Your task to perform on an android device: uninstall "Chime – Mobile Banking" Image 0: 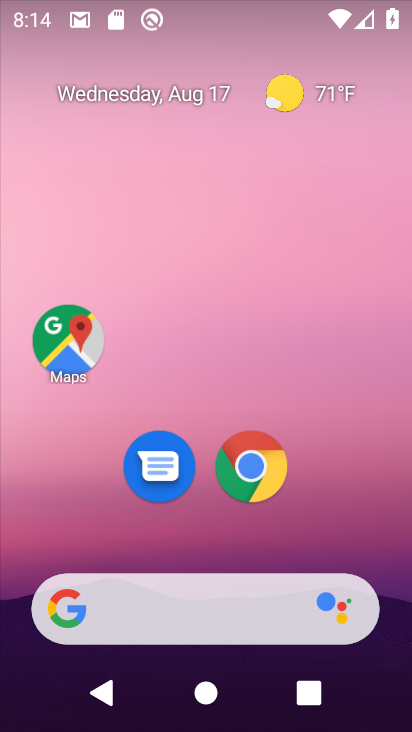
Step 0: drag from (208, 538) to (237, 3)
Your task to perform on an android device: uninstall "Chime – Mobile Banking" Image 1: 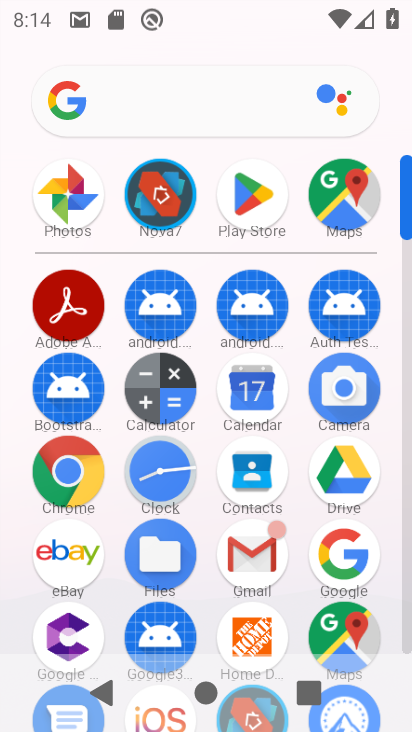
Step 1: click (252, 199)
Your task to perform on an android device: uninstall "Chime – Mobile Banking" Image 2: 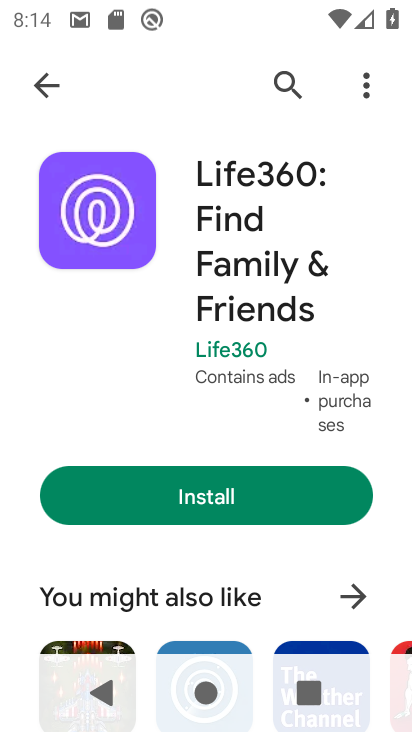
Step 2: click (36, 83)
Your task to perform on an android device: uninstall "Chime – Mobile Banking" Image 3: 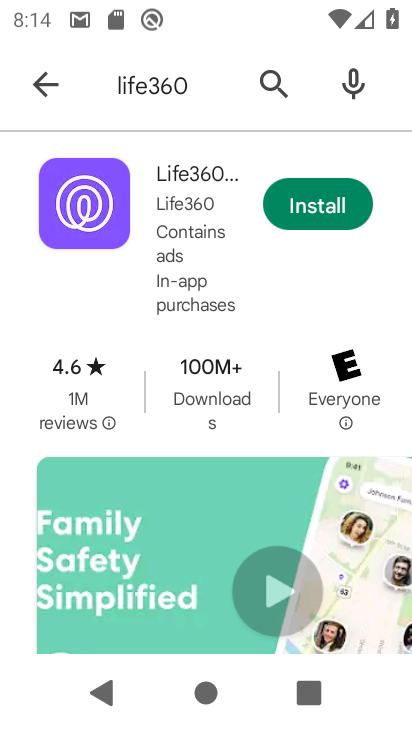
Step 3: click (181, 87)
Your task to perform on an android device: uninstall "Chime – Mobile Banking" Image 4: 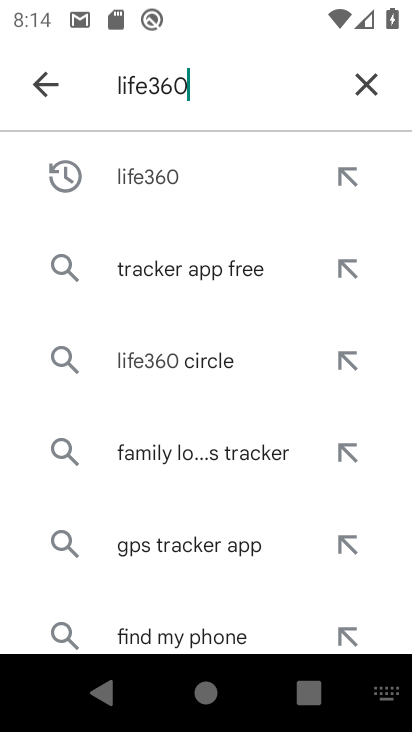
Step 4: click (361, 76)
Your task to perform on an android device: uninstall "Chime – Mobile Banking" Image 5: 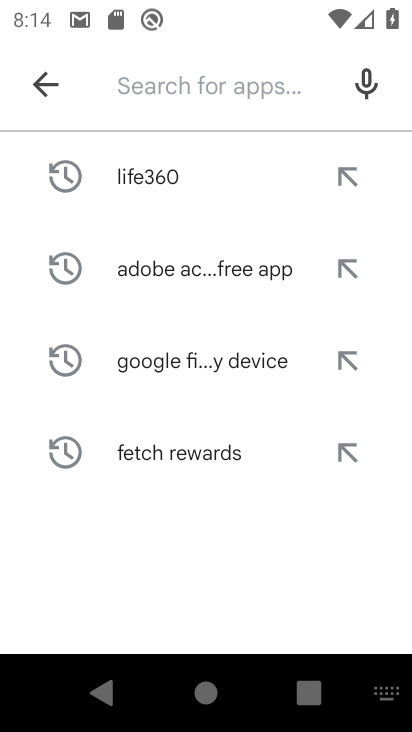
Step 5: type "chime"
Your task to perform on an android device: uninstall "Chime – Mobile Banking" Image 6: 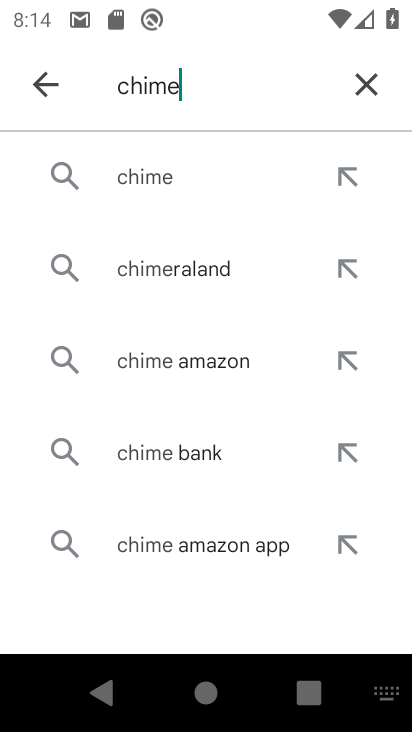
Step 6: click (192, 167)
Your task to perform on an android device: uninstall "Chime – Mobile Banking" Image 7: 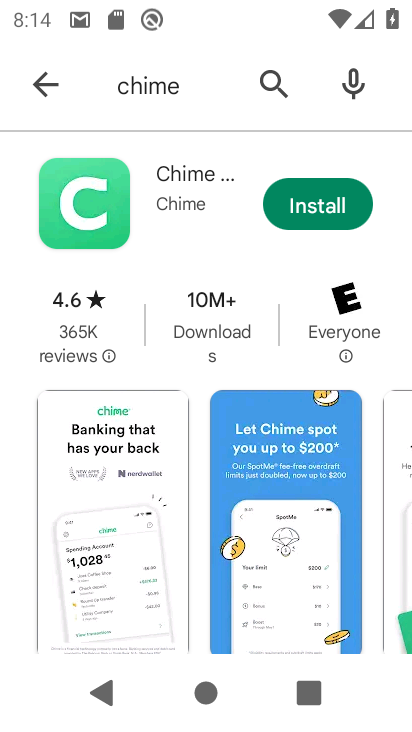
Step 7: task complete